Your task to perform on an android device: delete the emails in spam in the gmail app Image 0: 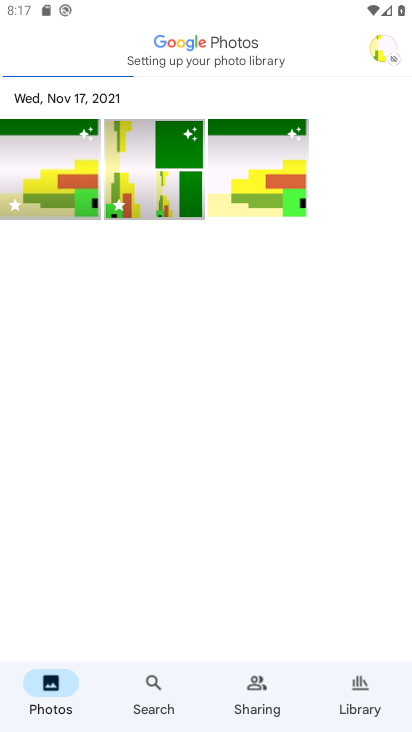
Step 0: press home button
Your task to perform on an android device: delete the emails in spam in the gmail app Image 1: 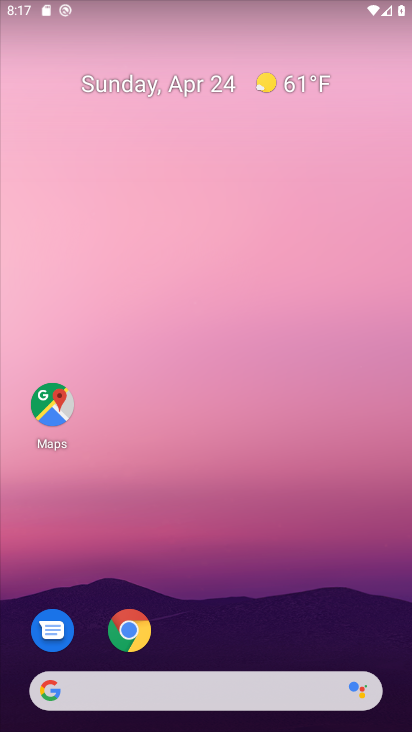
Step 1: drag from (315, 622) to (334, 70)
Your task to perform on an android device: delete the emails in spam in the gmail app Image 2: 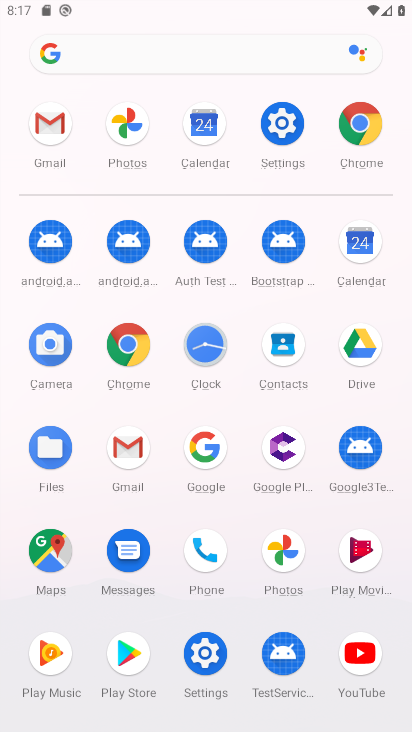
Step 2: click (128, 460)
Your task to perform on an android device: delete the emails in spam in the gmail app Image 3: 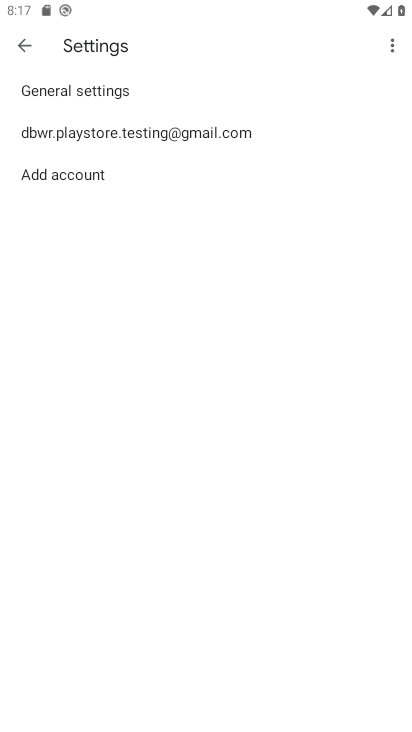
Step 3: click (18, 47)
Your task to perform on an android device: delete the emails in spam in the gmail app Image 4: 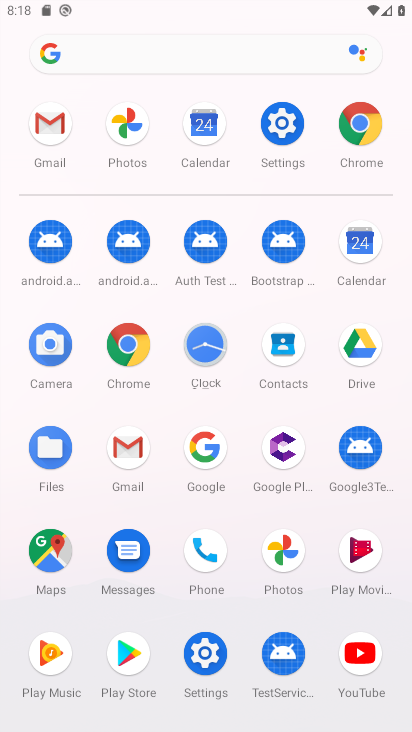
Step 4: click (137, 448)
Your task to perform on an android device: delete the emails in spam in the gmail app Image 5: 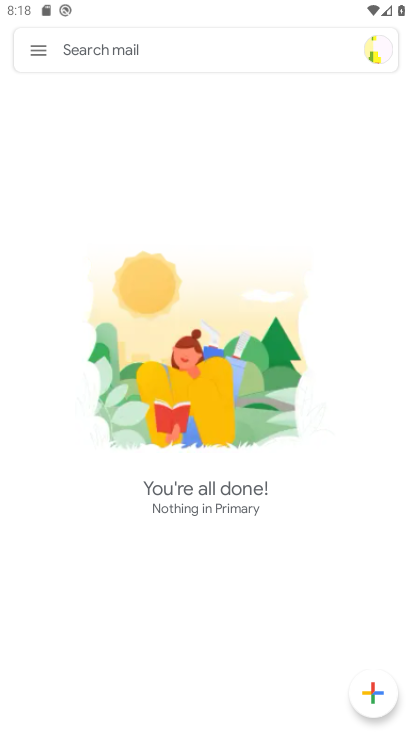
Step 5: click (39, 54)
Your task to perform on an android device: delete the emails in spam in the gmail app Image 6: 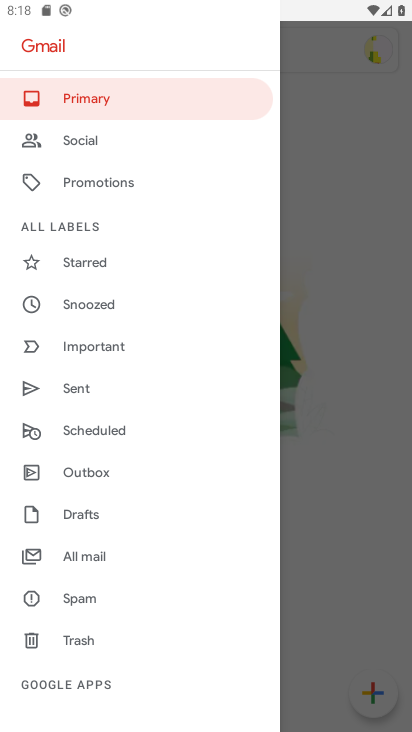
Step 6: click (101, 597)
Your task to perform on an android device: delete the emails in spam in the gmail app Image 7: 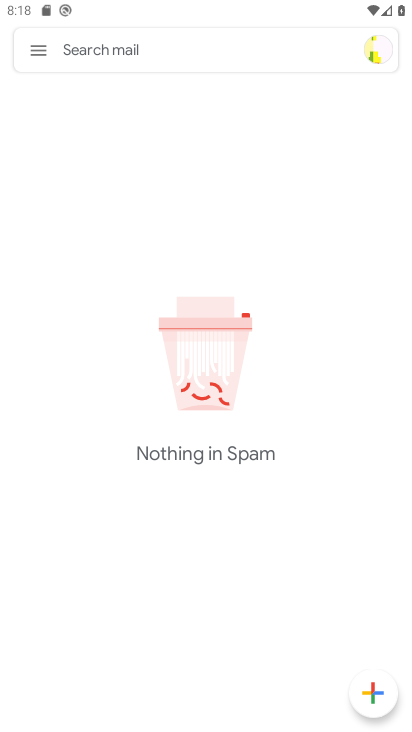
Step 7: task complete